Your task to perform on an android device: toggle notification dots Image 0: 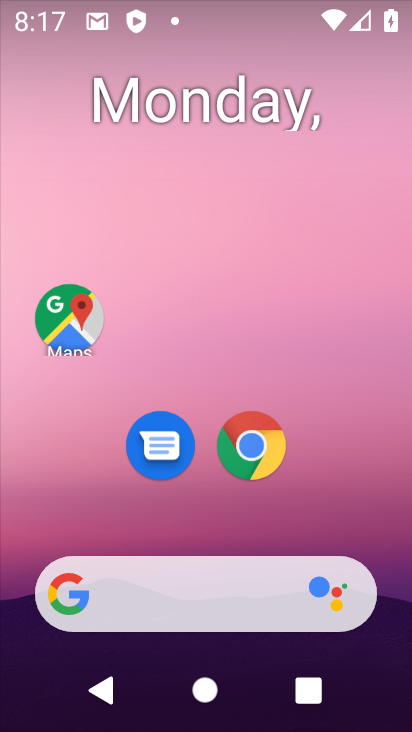
Step 0: drag from (211, 595) to (154, 5)
Your task to perform on an android device: toggle notification dots Image 1: 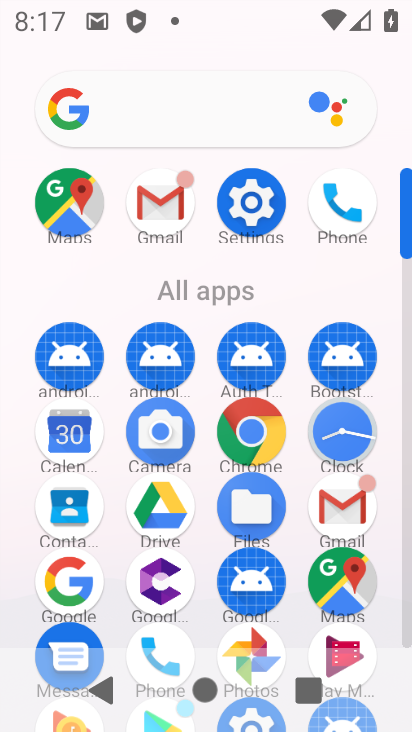
Step 1: click (266, 185)
Your task to perform on an android device: toggle notification dots Image 2: 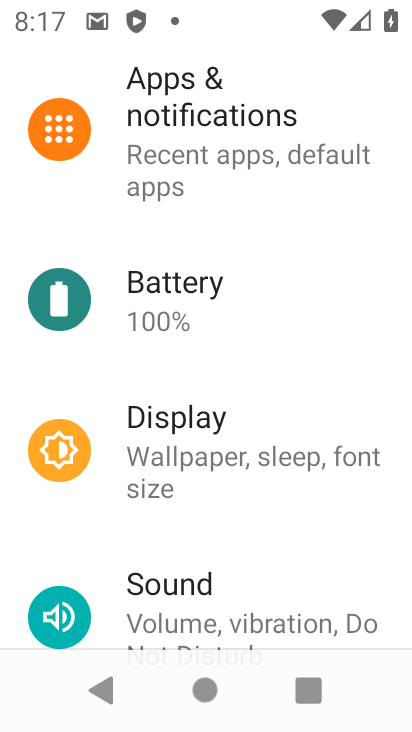
Step 2: click (310, 133)
Your task to perform on an android device: toggle notification dots Image 3: 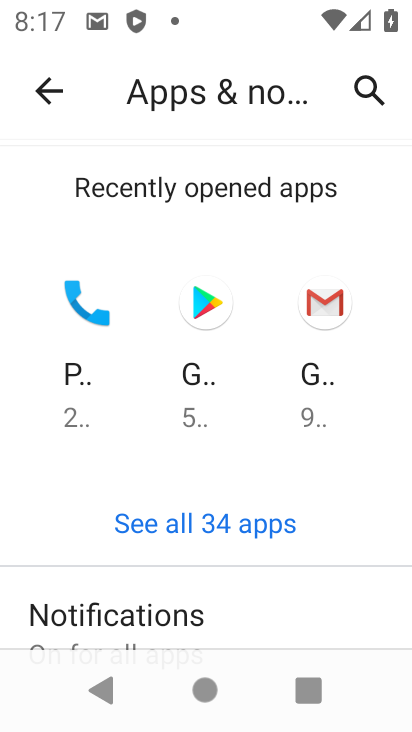
Step 3: drag from (249, 462) to (206, 69)
Your task to perform on an android device: toggle notification dots Image 4: 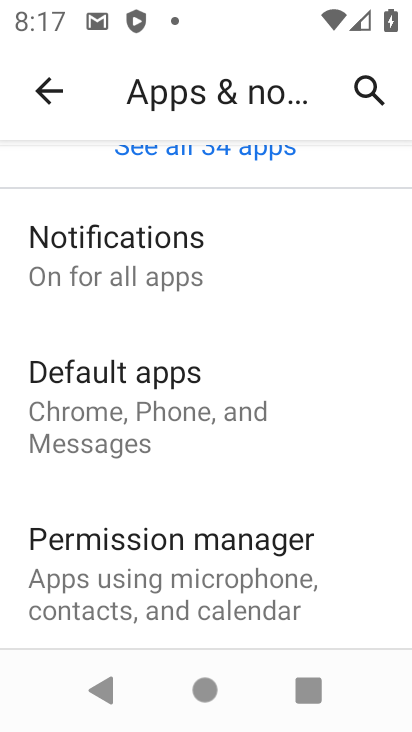
Step 4: drag from (301, 561) to (95, 6)
Your task to perform on an android device: toggle notification dots Image 5: 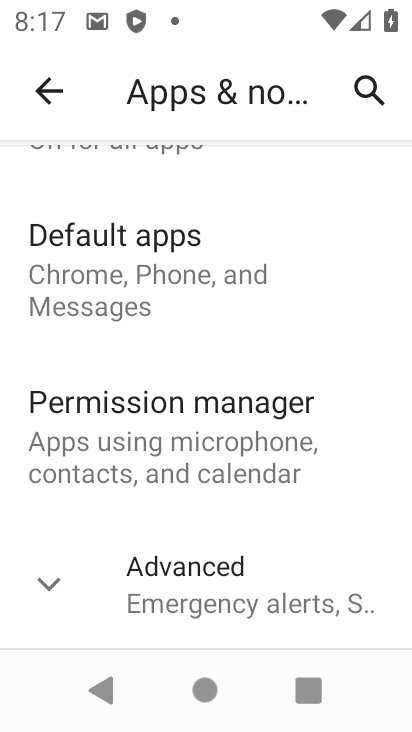
Step 5: drag from (310, 291) to (238, 727)
Your task to perform on an android device: toggle notification dots Image 6: 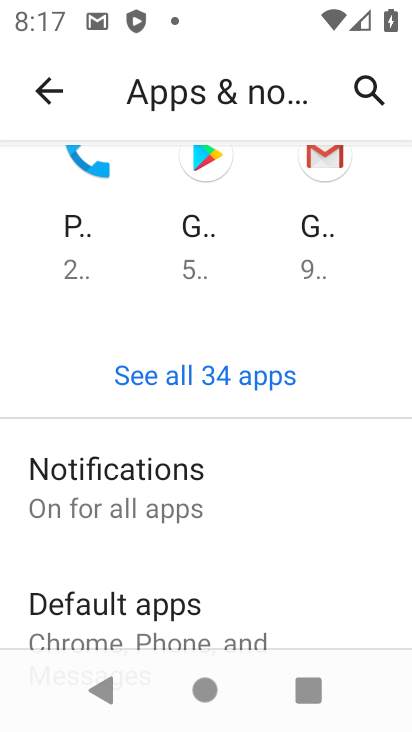
Step 6: click (209, 481)
Your task to perform on an android device: toggle notification dots Image 7: 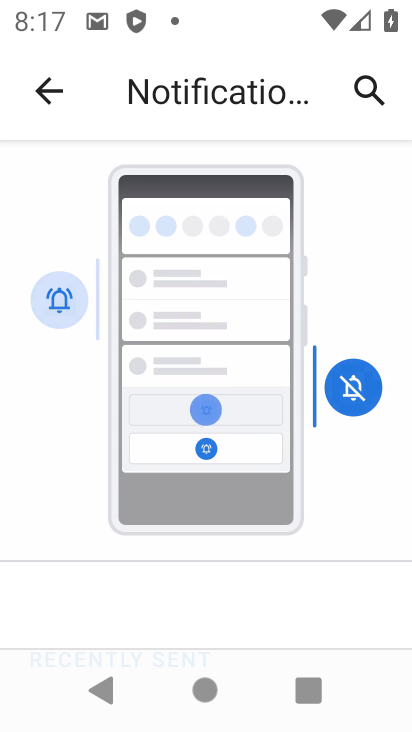
Step 7: drag from (150, 595) to (148, 51)
Your task to perform on an android device: toggle notification dots Image 8: 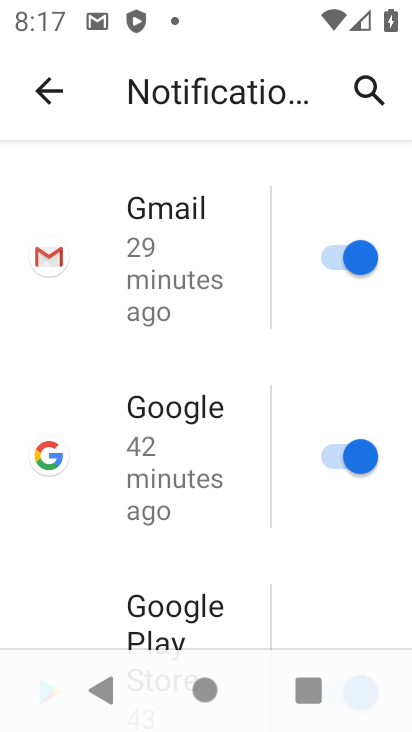
Step 8: drag from (214, 588) to (276, 110)
Your task to perform on an android device: toggle notification dots Image 9: 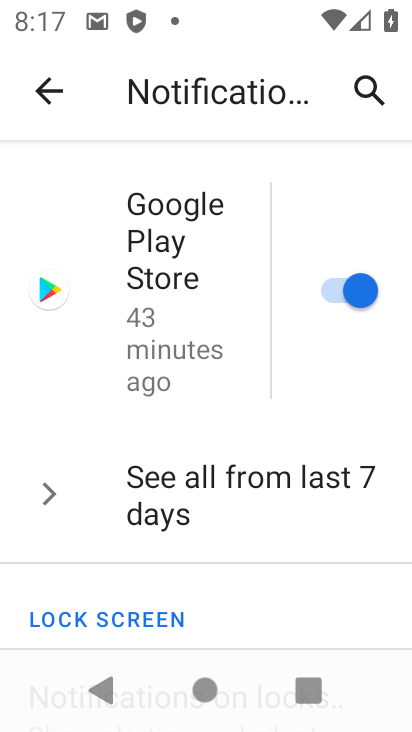
Step 9: drag from (191, 580) to (84, 39)
Your task to perform on an android device: toggle notification dots Image 10: 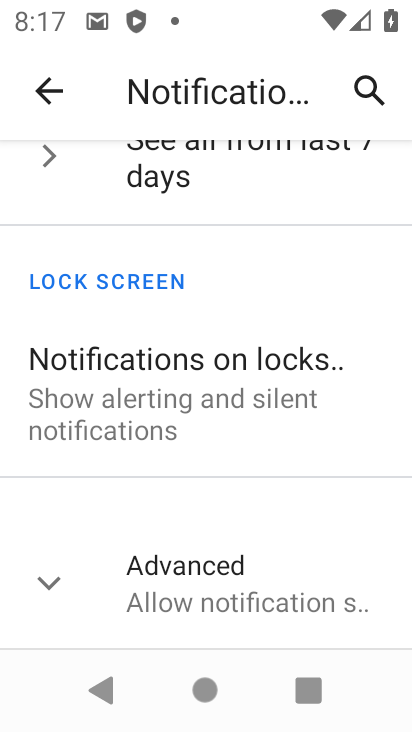
Step 10: click (279, 594)
Your task to perform on an android device: toggle notification dots Image 11: 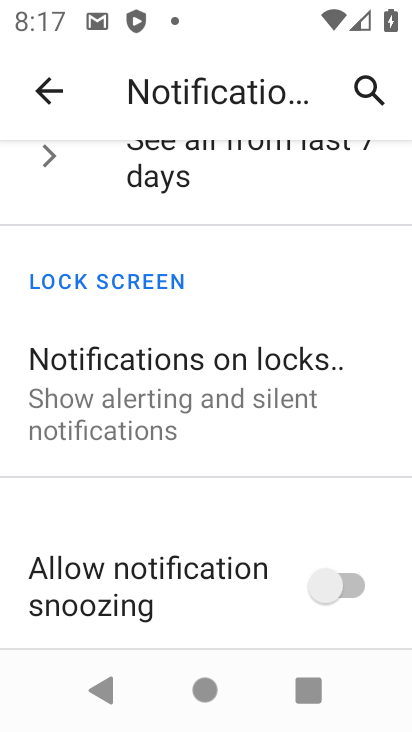
Step 11: drag from (146, 499) to (95, 18)
Your task to perform on an android device: toggle notification dots Image 12: 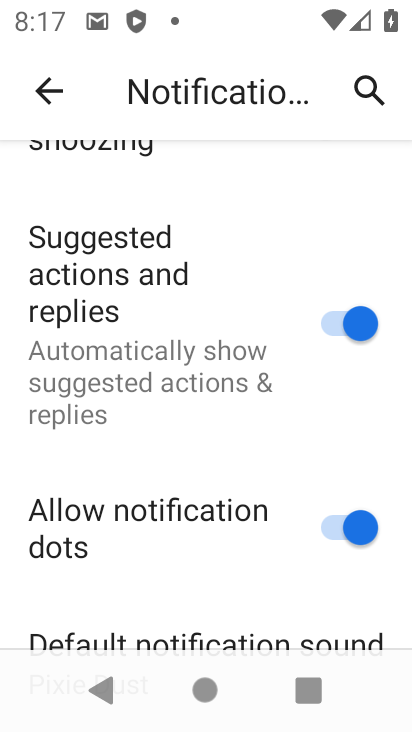
Step 12: click (345, 525)
Your task to perform on an android device: toggle notification dots Image 13: 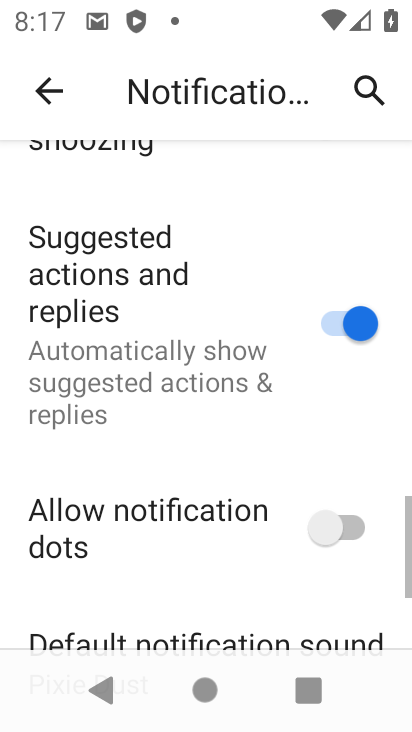
Step 13: task complete